Your task to perform on an android device: toggle javascript in the chrome app Image 0: 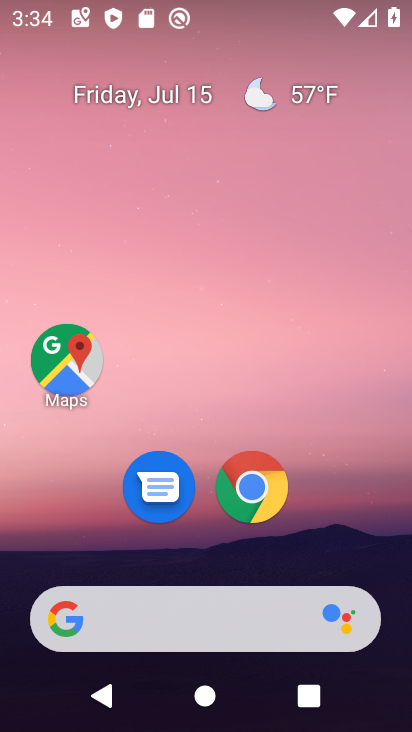
Step 0: press home button
Your task to perform on an android device: toggle javascript in the chrome app Image 1: 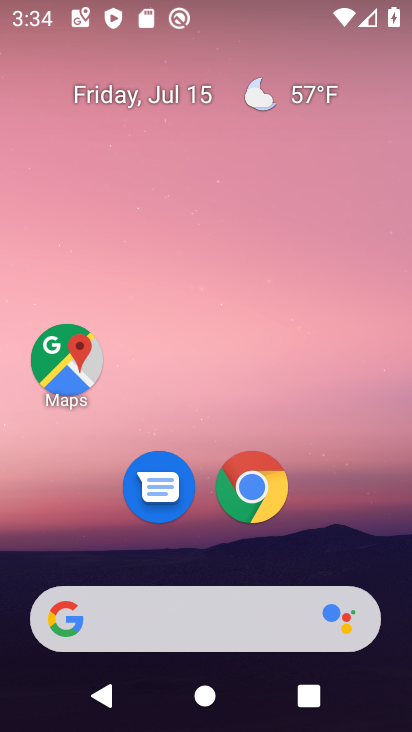
Step 1: drag from (198, 626) to (238, 210)
Your task to perform on an android device: toggle javascript in the chrome app Image 2: 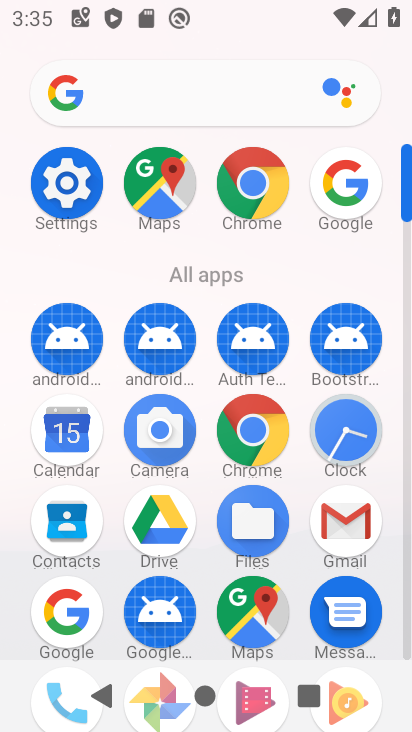
Step 2: click (252, 440)
Your task to perform on an android device: toggle javascript in the chrome app Image 3: 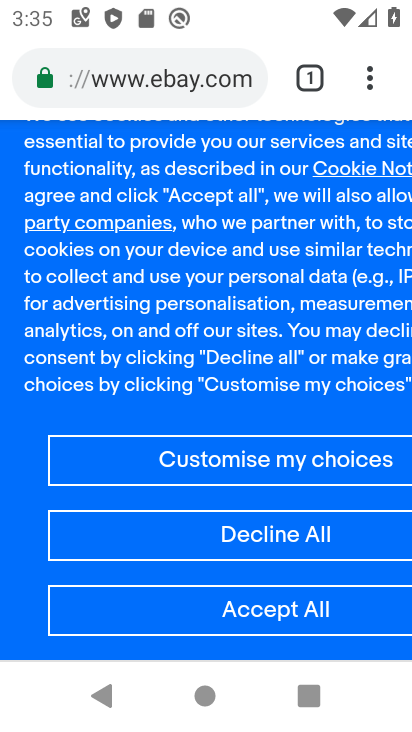
Step 3: click (373, 92)
Your task to perform on an android device: toggle javascript in the chrome app Image 4: 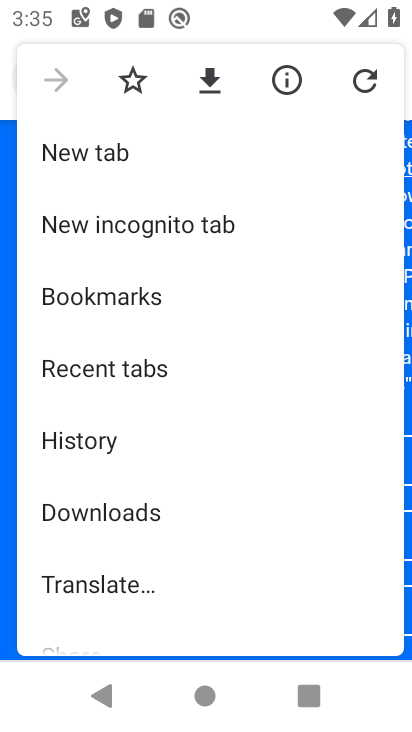
Step 4: drag from (86, 551) to (82, 238)
Your task to perform on an android device: toggle javascript in the chrome app Image 5: 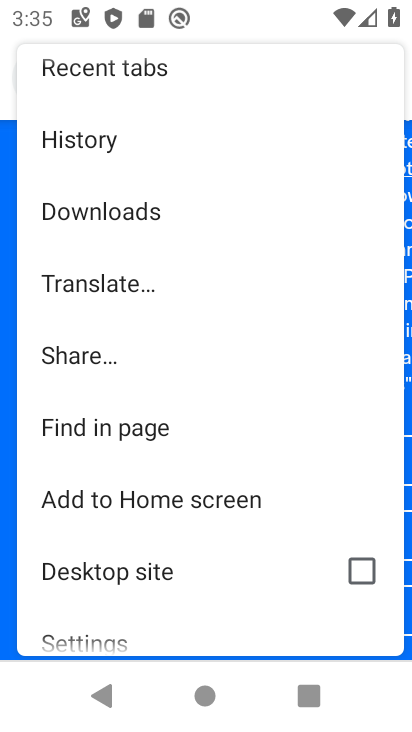
Step 5: drag from (114, 527) to (129, 294)
Your task to perform on an android device: toggle javascript in the chrome app Image 6: 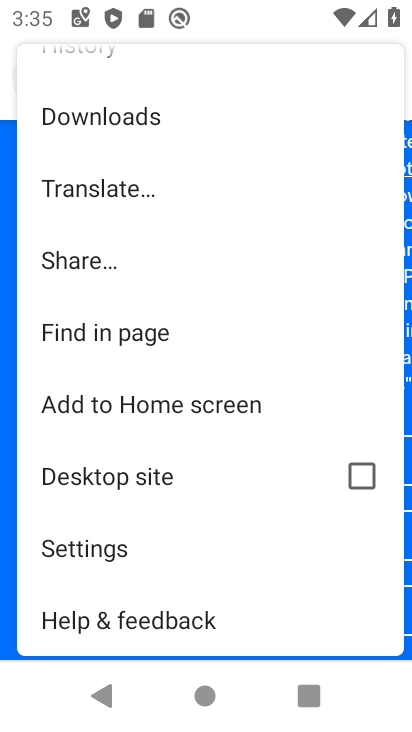
Step 6: click (139, 562)
Your task to perform on an android device: toggle javascript in the chrome app Image 7: 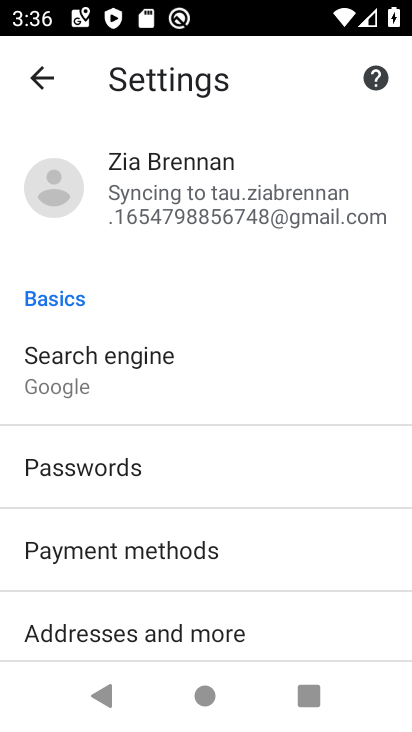
Step 7: drag from (162, 445) to (228, 121)
Your task to perform on an android device: toggle javascript in the chrome app Image 8: 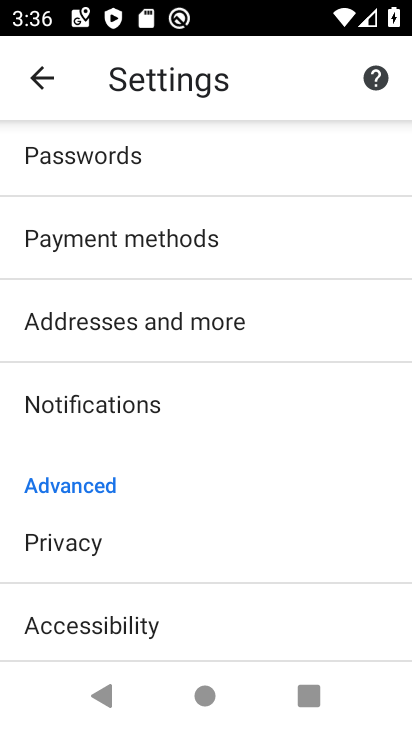
Step 8: drag from (200, 510) to (246, 189)
Your task to perform on an android device: toggle javascript in the chrome app Image 9: 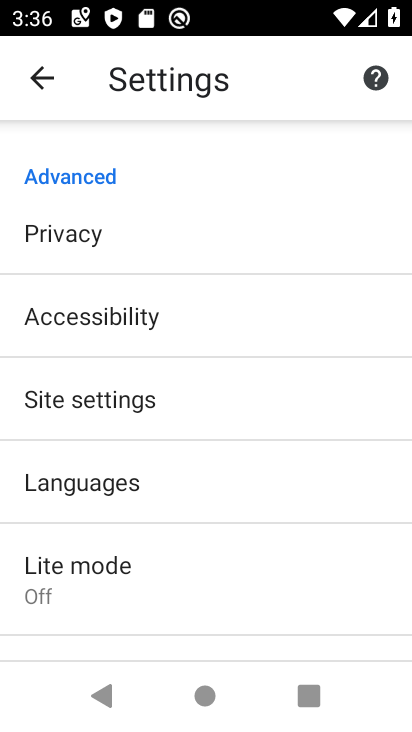
Step 9: click (144, 408)
Your task to perform on an android device: toggle javascript in the chrome app Image 10: 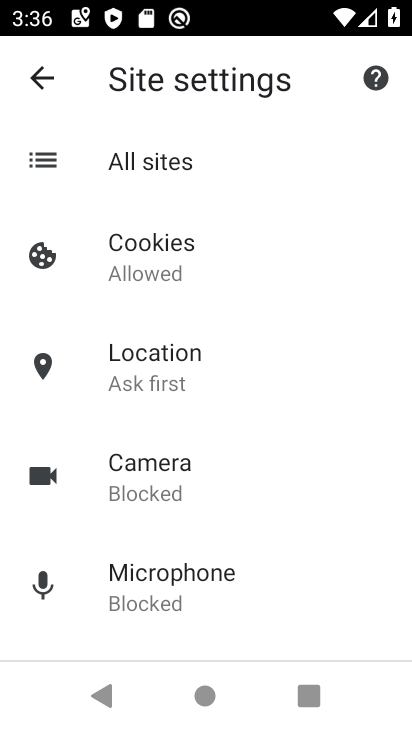
Step 10: drag from (122, 467) to (138, 372)
Your task to perform on an android device: toggle javascript in the chrome app Image 11: 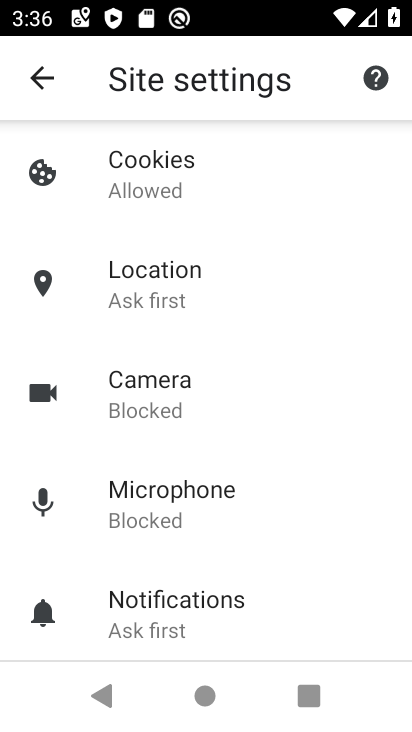
Step 11: drag from (151, 531) to (180, 232)
Your task to perform on an android device: toggle javascript in the chrome app Image 12: 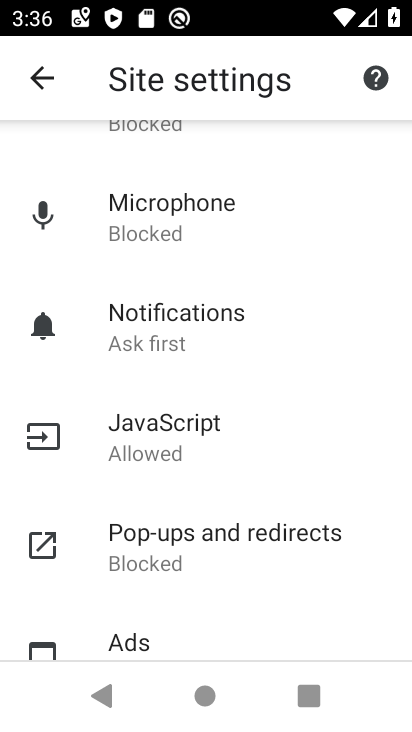
Step 12: click (187, 445)
Your task to perform on an android device: toggle javascript in the chrome app Image 13: 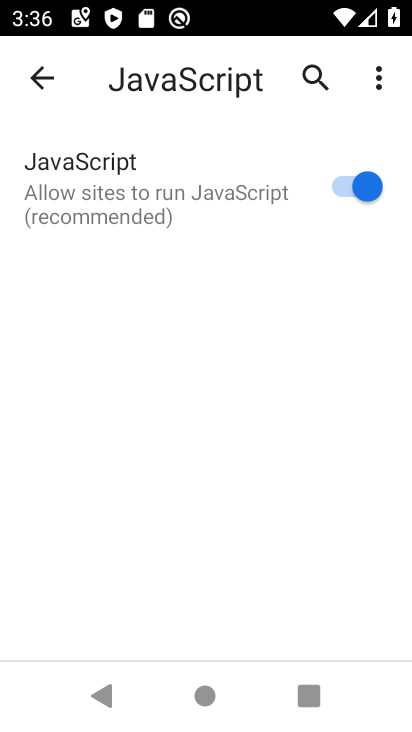
Step 13: click (315, 193)
Your task to perform on an android device: toggle javascript in the chrome app Image 14: 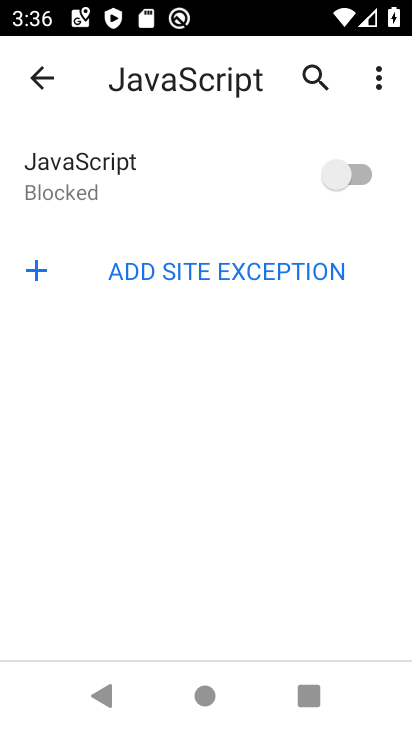
Step 14: task complete